Your task to perform on an android device: What's the weather? Image 0: 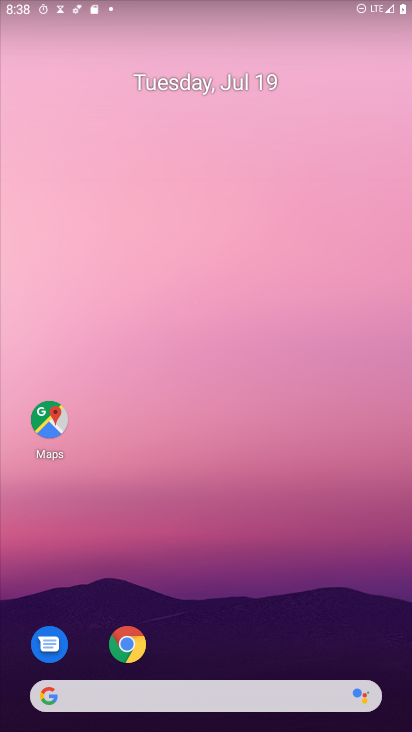
Step 0: click (85, 700)
Your task to perform on an android device: What's the weather? Image 1: 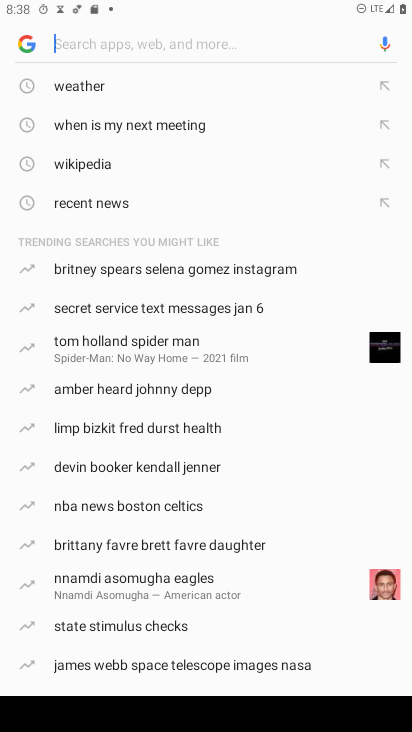
Step 1: click (75, 80)
Your task to perform on an android device: What's the weather? Image 2: 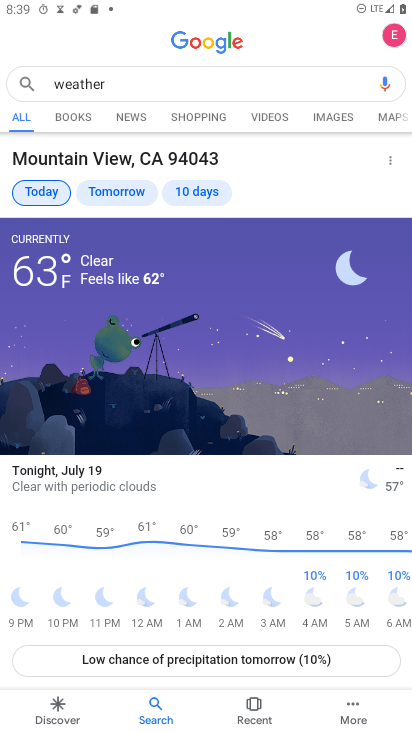
Step 2: task complete